Your task to perform on an android device: find photos in the google photos app Image 0: 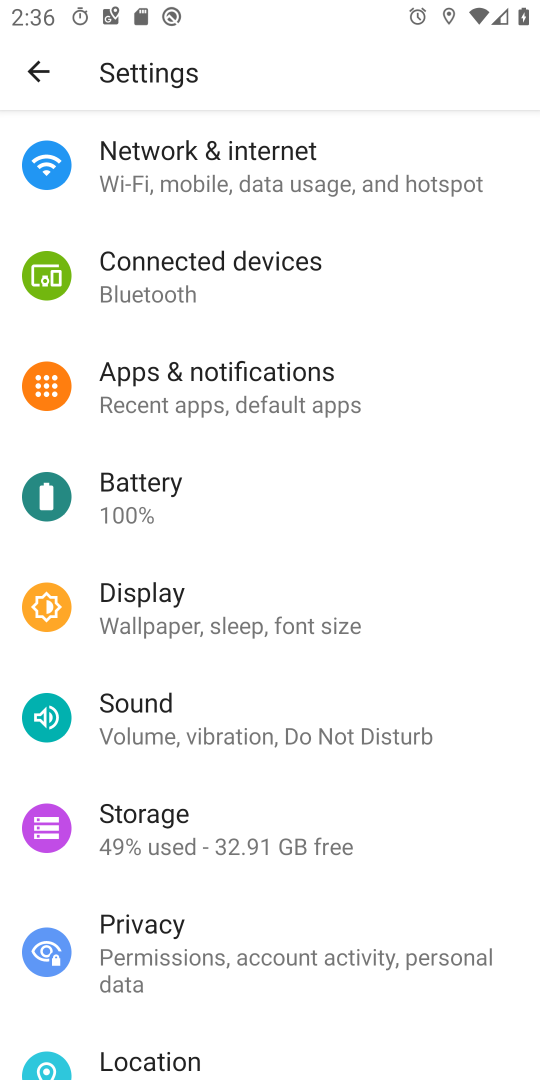
Step 0: press home button
Your task to perform on an android device: find photos in the google photos app Image 1: 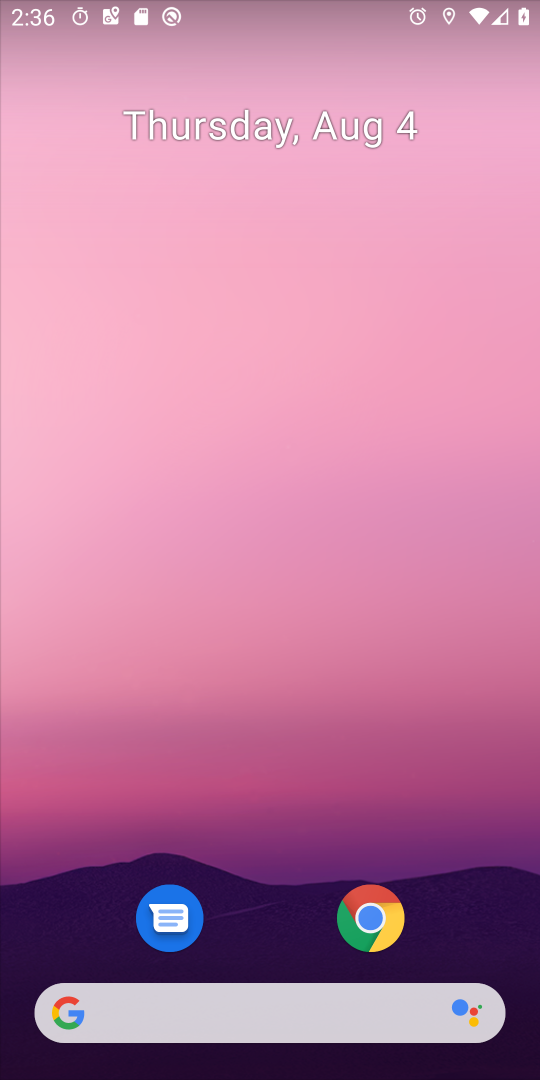
Step 1: drag from (279, 906) to (279, 276)
Your task to perform on an android device: find photos in the google photos app Image 2: 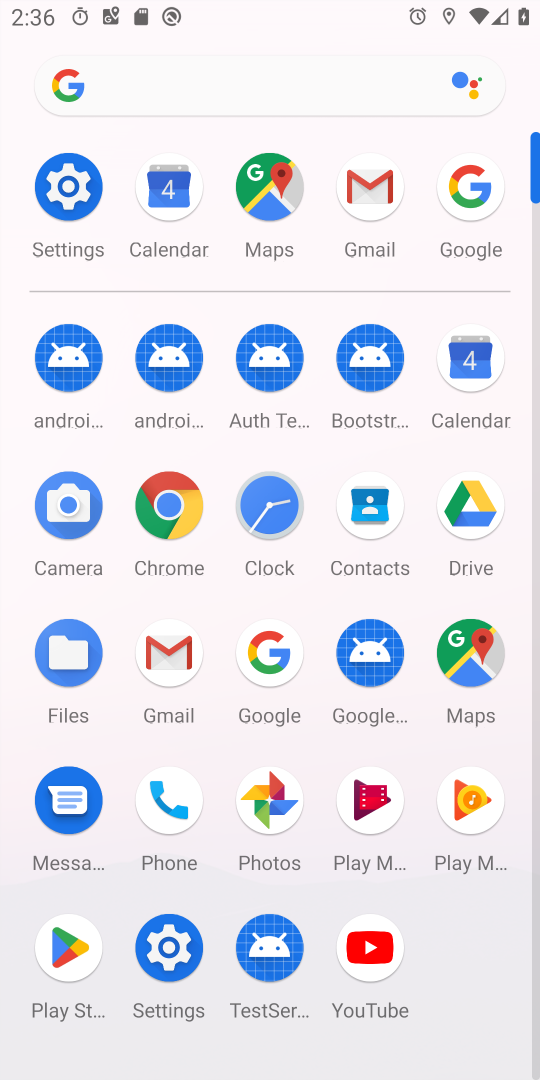
Step 2: click (268, 778)
Your task to perform on an android device: find photos in the google photos app Image 3: 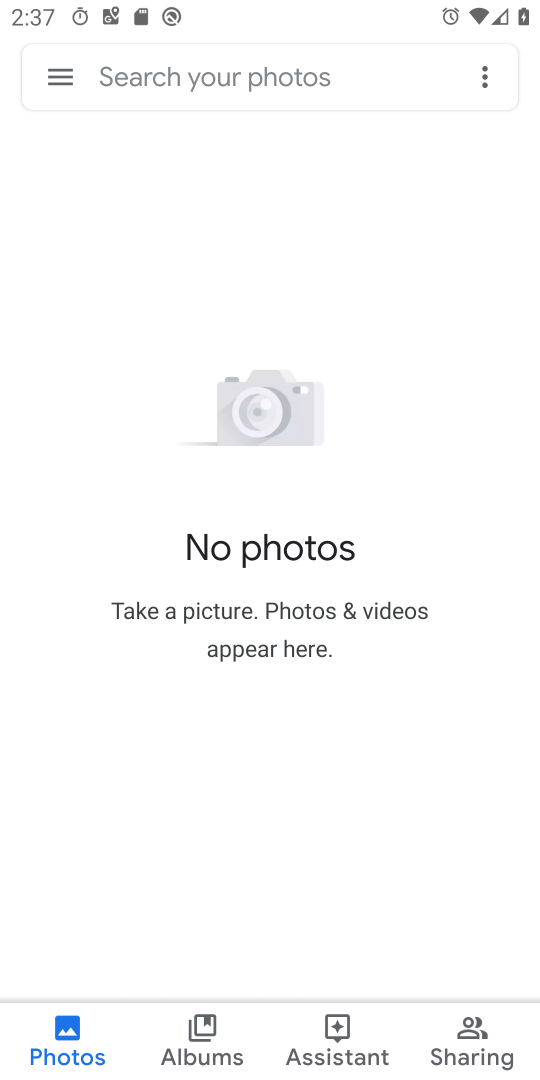
Step 3: task complete